Your task to perform on an android device: turn off javascript in the chrome app Image 0: 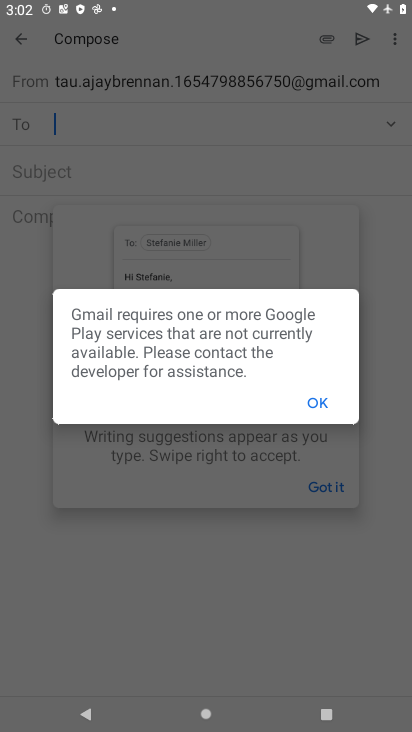
Step 0: press home button
Your task to perform on an android device: turn off javascript in the chrome app Image 1: 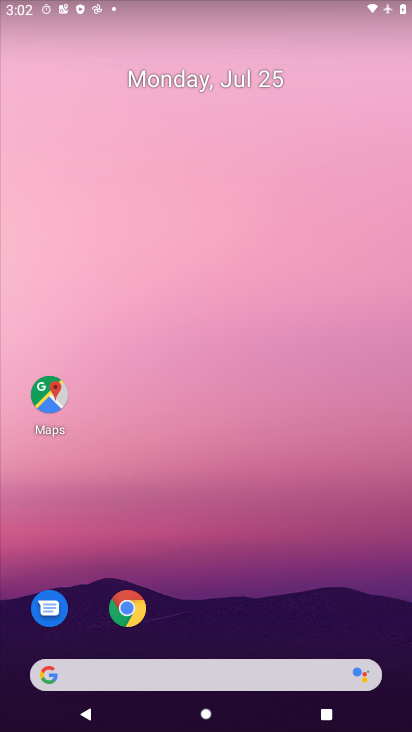
Step 1: drag from (261, 681) to (202, 120)
Your task to perform on an android device: turn off javascript in the chrome app Image 2: 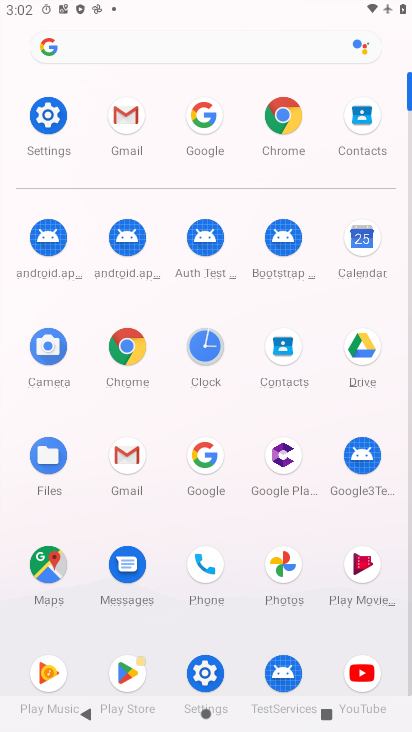
Step 2: click (281, 135)
Your task to perform on an android device: turn off javascript in the chrome app Image 3: 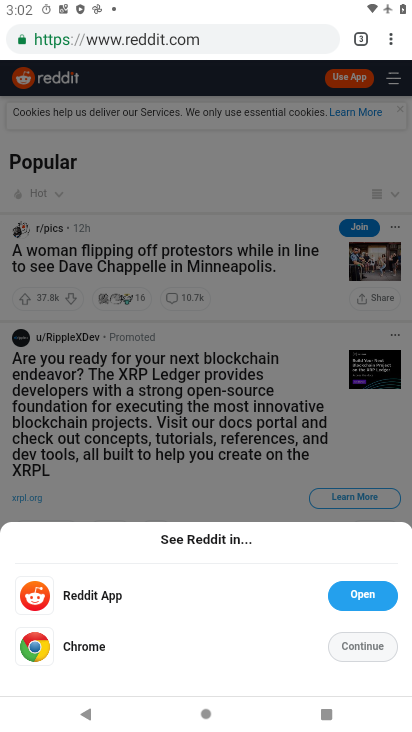
Step 3: click (401, 38)
Your task to perform on an android device: turn off javascript in the chrome app Image 4: 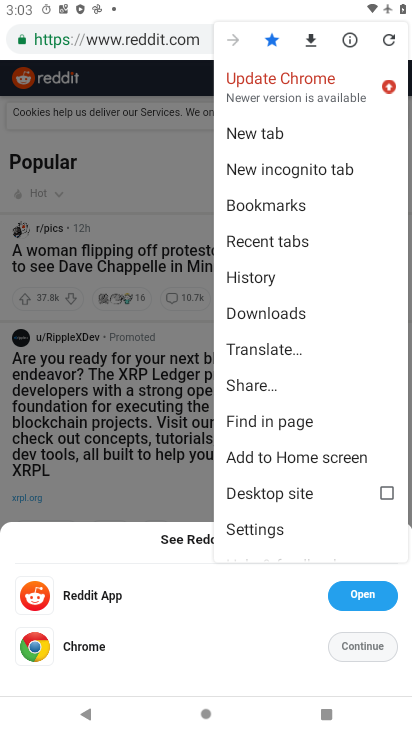
Step 4: click (285, 531)
Your task to perform on an android device: turn off javascript in the chrome app Image 5: 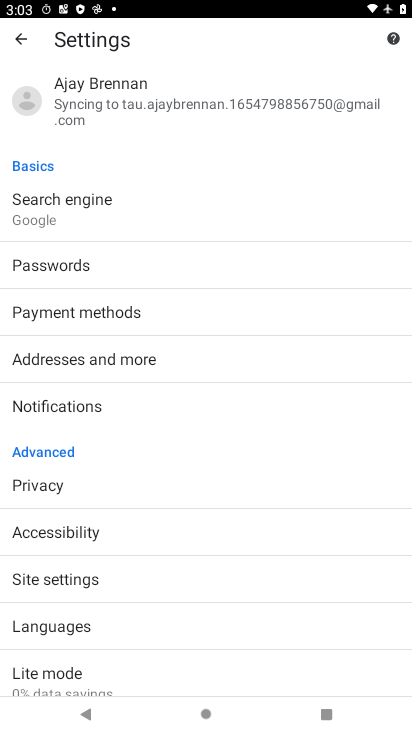
Step 5: click (120, 579)
Your task to perform on an android device: turn off javascript in the chrome app Image 6: 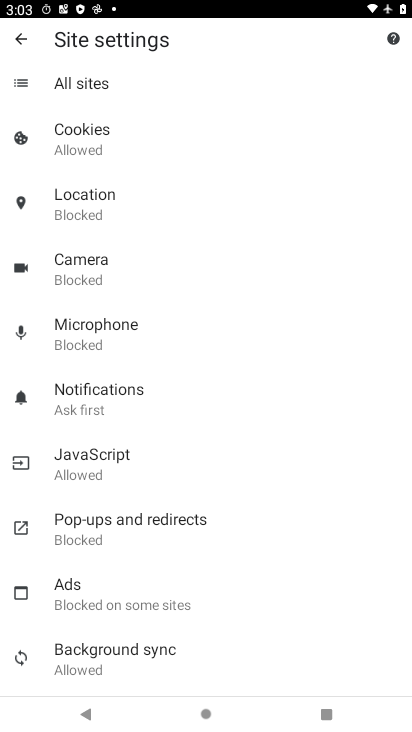
Step 6: click (129, 451)
Your task to perform on an android device: turn off javascript in the chrome app Image 7: 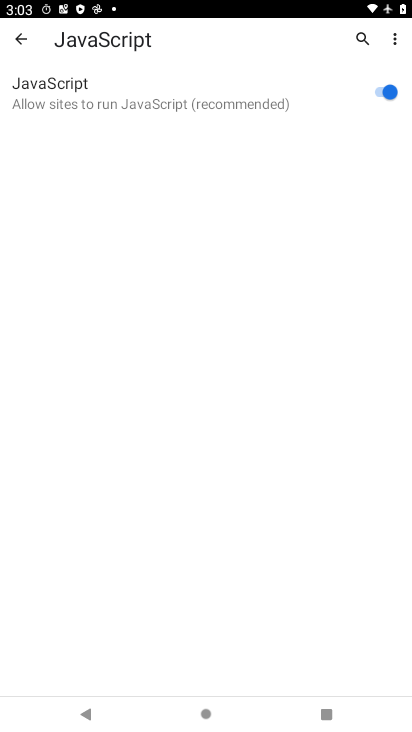
Step 7: click (349, 83)
Your task to perform on an android device: turn off javascript in the chrome app Image 8: 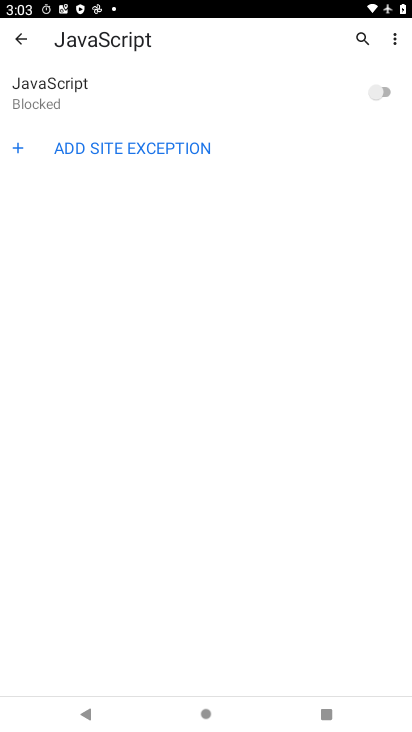
Step 8: task complete